Your task to perform on an android device: allow notifications from all sites in the chrome app Image 0: 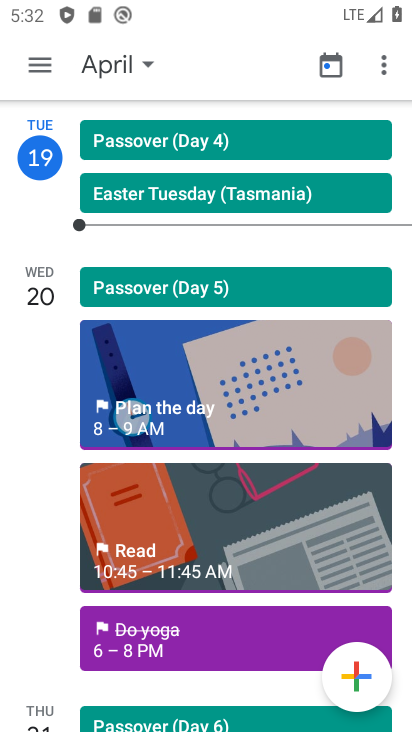
Step 0: press home button
Your task to perform on an android device: allow notifications from all sites in the chrome app Image 1: 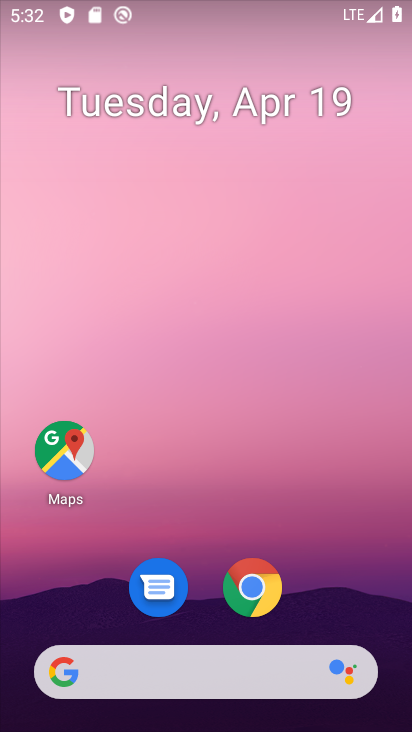
Step 1: click (268, 560)
Your task to perform on an android device: allow notifications from all sites in the chrome app Image 2: 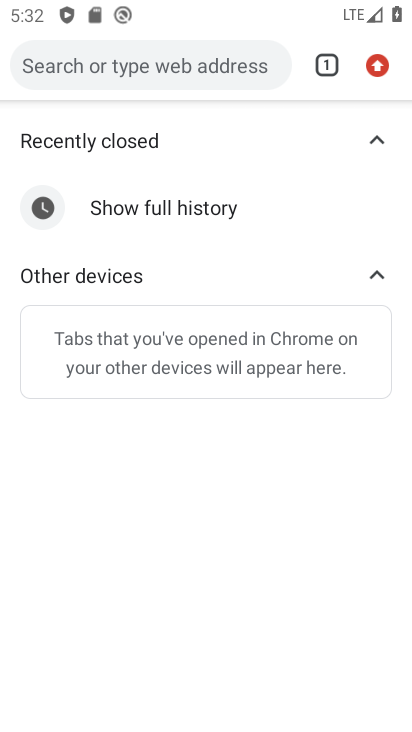
Step 2: click (375, 72)
Your task to perform on an android device: allow notifications from all sites in the chrome app Image 3: 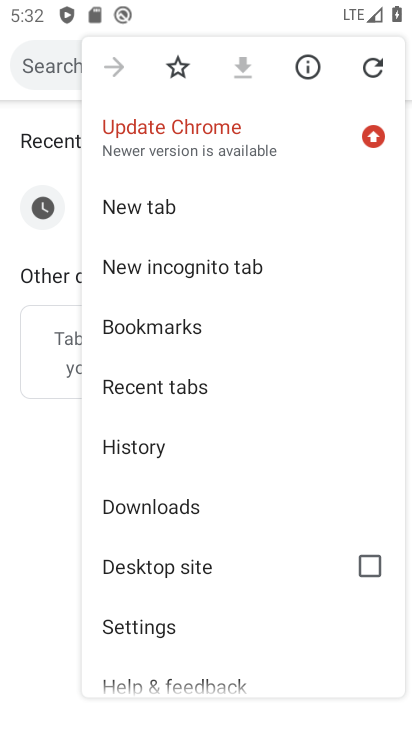
Step 3: click (151, 632)
Your task to perform on an android device: allow notifications from all sites in the chrome app Image 4: 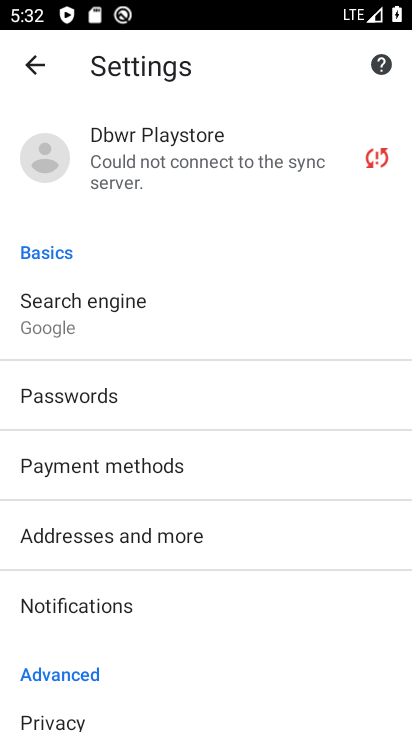
Step 4: drag from (151, 632) to (168, 258)
Your task to perform on an android device: allow notifications from all sites in the chrome app Image 5: 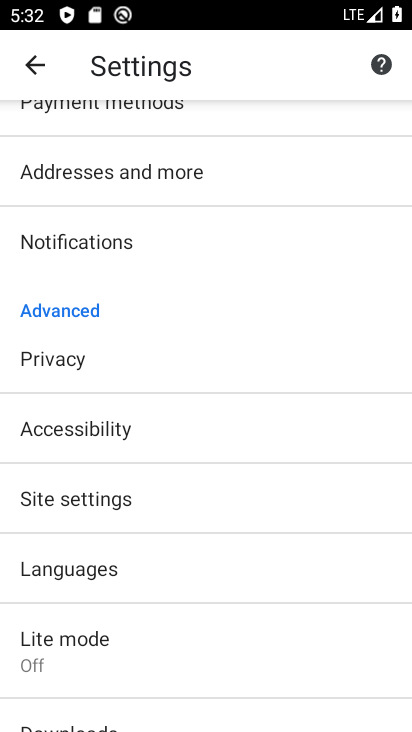
Step 5: click (81, 520)
Your task to perform on an android device: allow notifications from all sites in the chrome app Image 6: 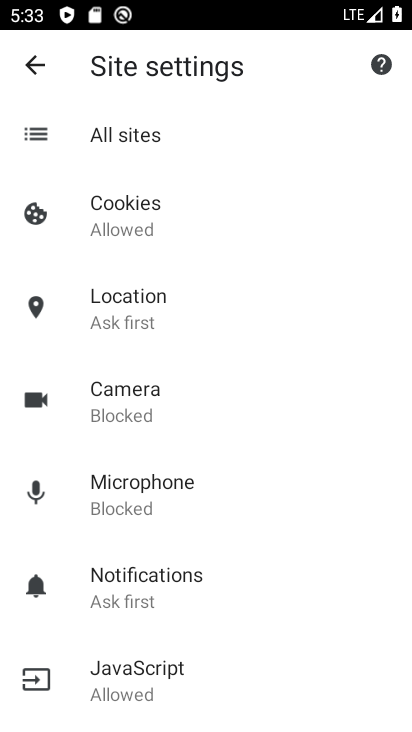
Step 6: click (102, 129)
Your task to perform on an android device: allow notifications from all sites in the chrome app Image 7: 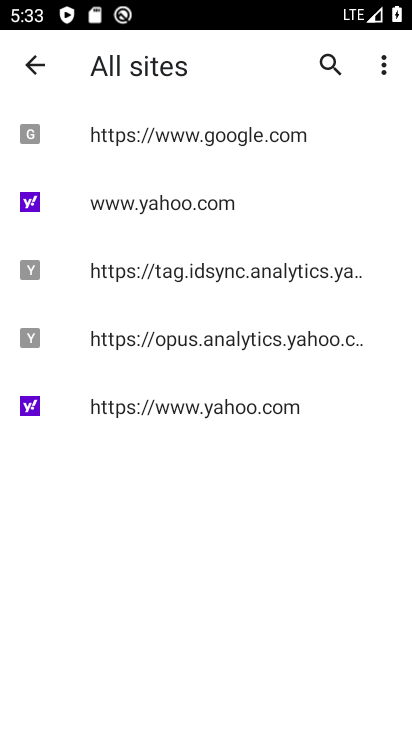
Step 7: click (388, 71)
Your task to perform on an android device: allow notifications from all sites in the chrome app Image 8: 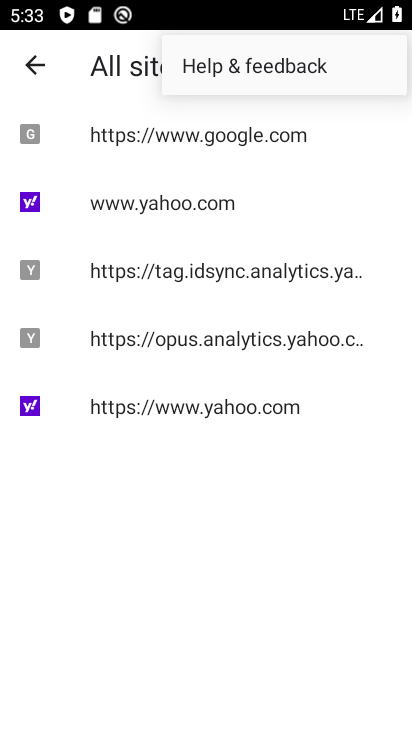
Step 8: task complete